Your task to perform on an android device: Open the map Image 0: 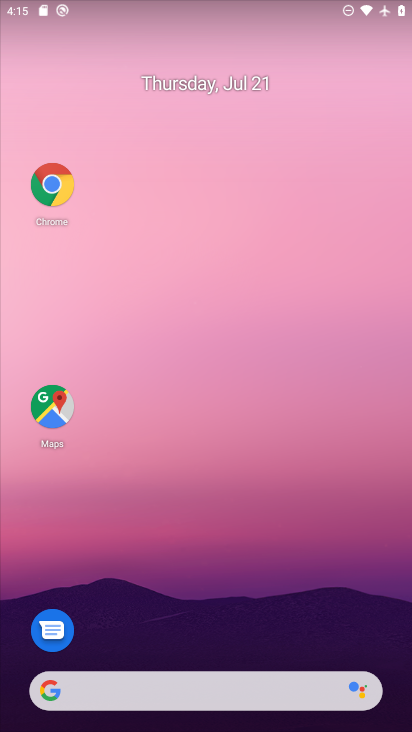
Step 0: click (77, 416)
Your task to perform on an android device: Open the map Image 1: 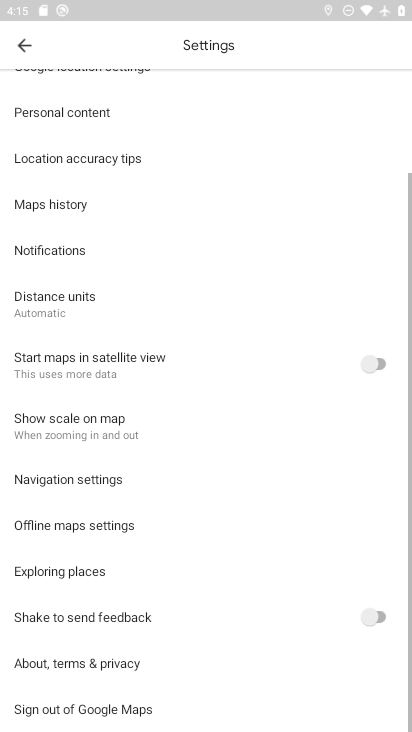
Step 1: click (37, 44)
Your task to perform on an android device: Open the map Image 2: 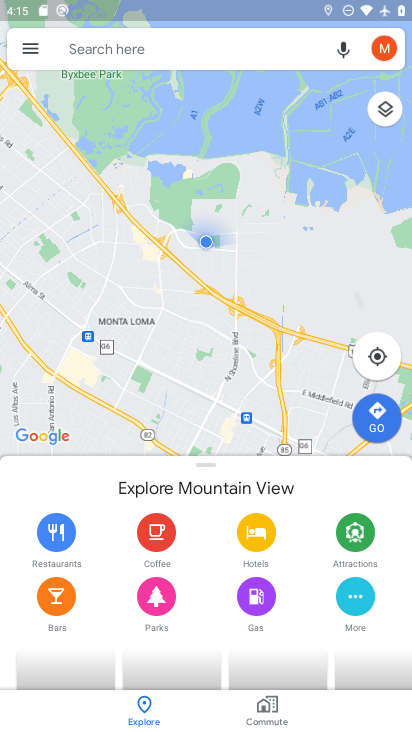
Step 2: task complete